Your task to perform on an android device: set the timer Image 0: 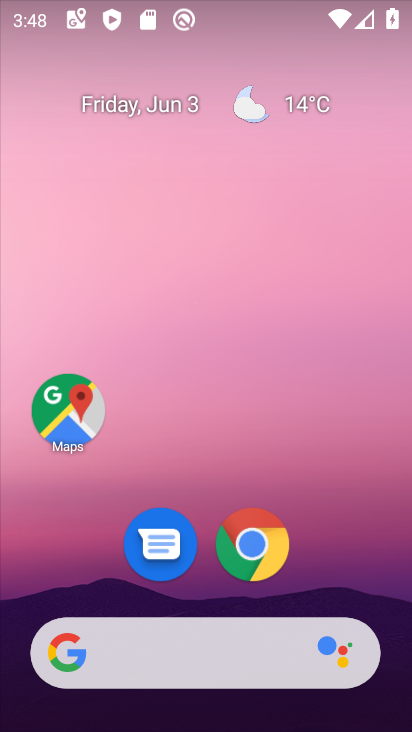
Step 0: drag from (387, 627) to (318, 141)
Your task to perform on an android device: set the timer Image 1: 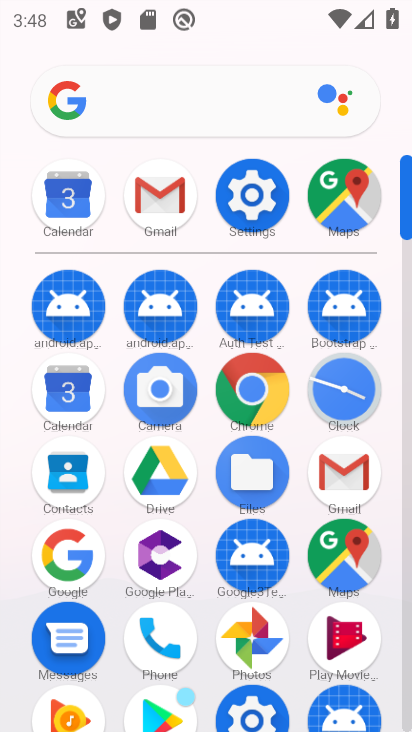
Step 1: click (403, 685)
Your task to perform on an android device: set the timer Image 2: 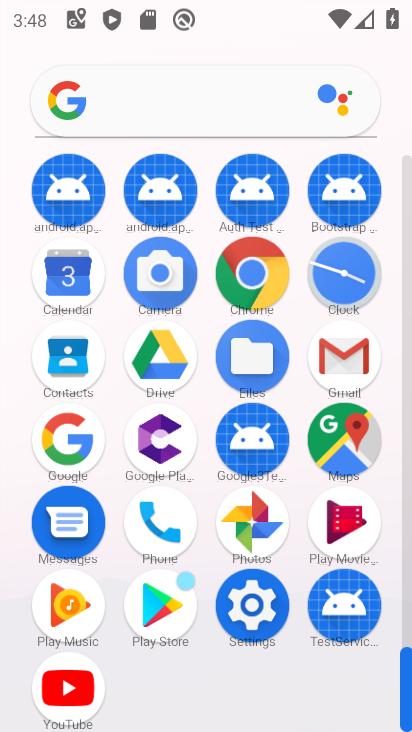
Step 2: click (341, 273)
Your task to perform on an android device: set the timer Image 3: 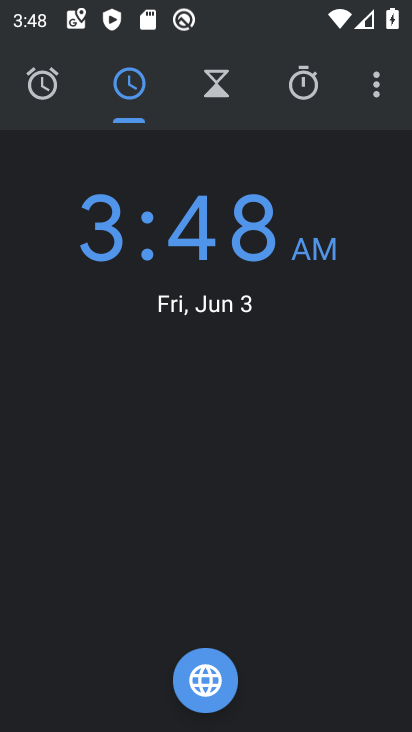
Step 3: click (217, 85)
Your task to perform on an android device: set the timer Image 4: 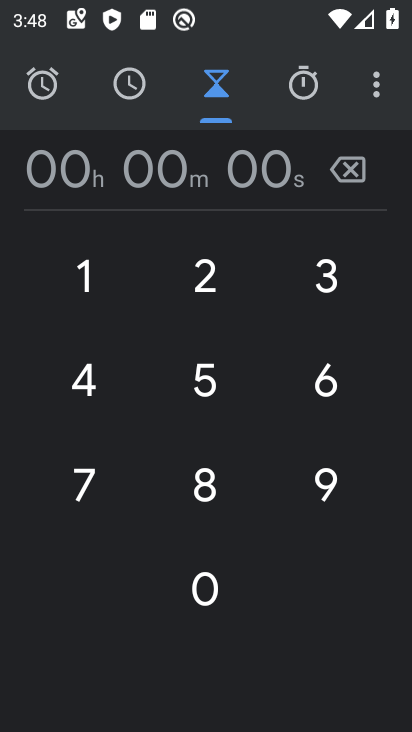
Step 4: click (71, 270)
Your task to perform on an android device: set the timer Image 5: 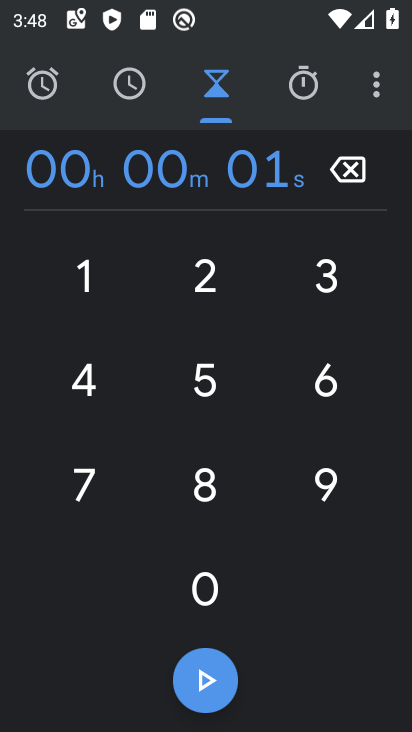
Step 5: click (341, 278)
Your task to perform on an android device: set the timer Image 6: 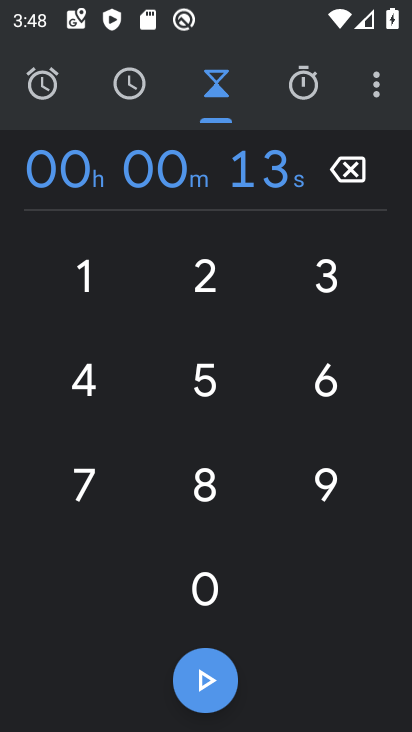
Step 6: click (216, 599)
Your task to perform on an android device: set the timer Image 7: 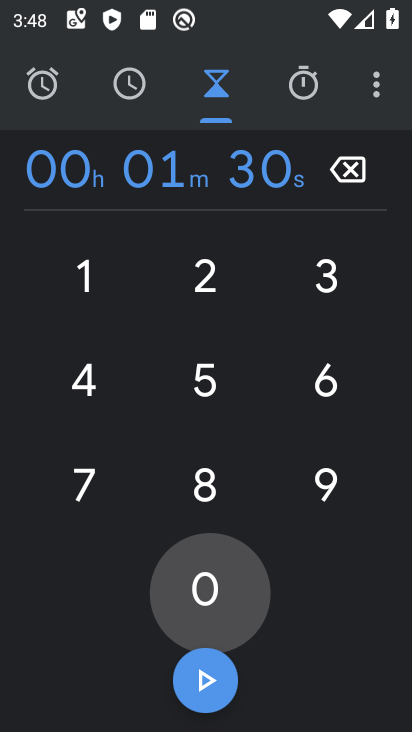
Step 7: click (216, 599)
Your task to perform on an android device: set the timer Image 8: 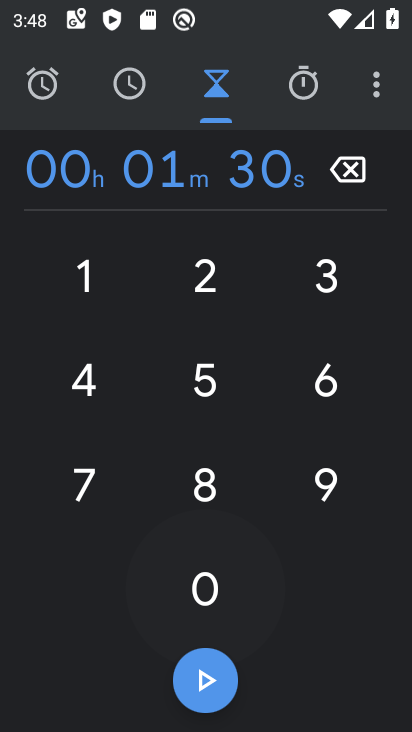
Step 8: click (216, 599)
Your task to perform on an android device: set the timer Image 9: 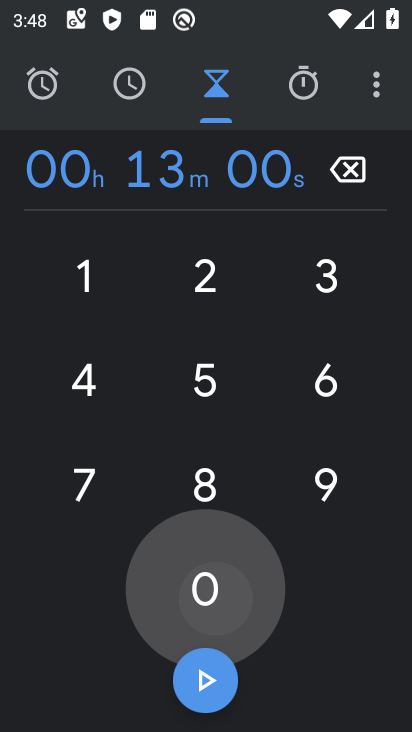
Step 9: click (216, 599)
Your task to perform on an android device: set the timer Image 10: 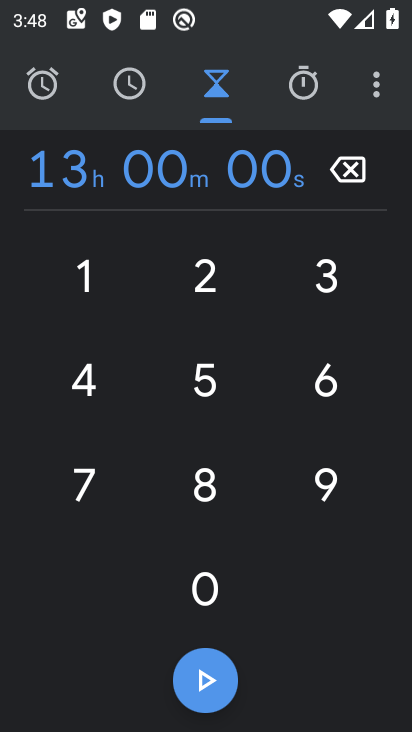
Step 10: task complete